Your task to perform on an android device: search for starred emails in the gmail app Image 0: 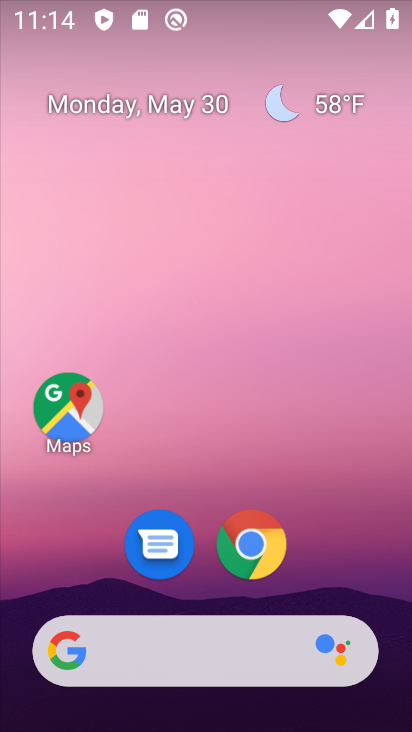
Step 0: drag from (364, 588) to (296, 104)
Your task to perform on an android device: search for starred emails in the gmail app Image 1: 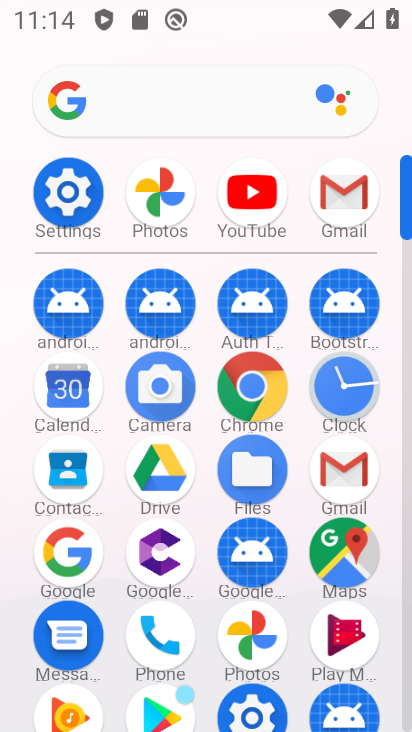
Step 1: click (332, 485)
Your task to perform on an android device: search for starred emails in the gmail app Image 2: 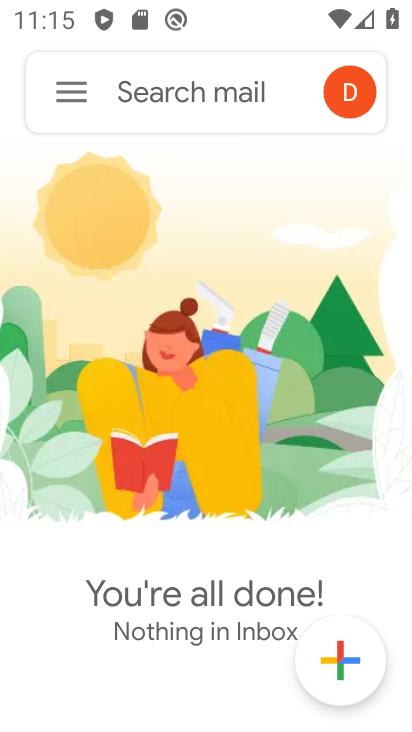
Step 2: task complete